Your task to perform on an android device: check google app version Image 0: 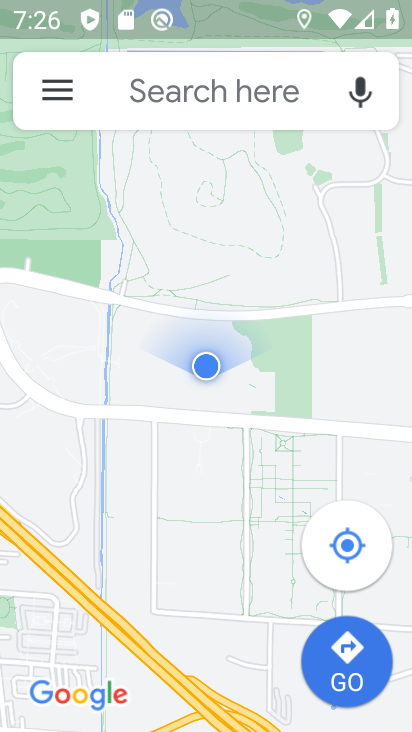
Step 0: press back button
Your task to perform on an android device: check google app version Image 1: 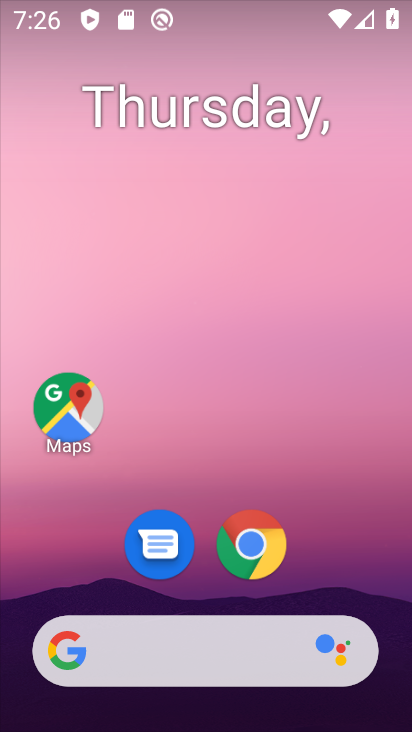
Step 1: drag from (331, 554) to (267, 180)
Your task to perform on an android device: check google app version Image 2: 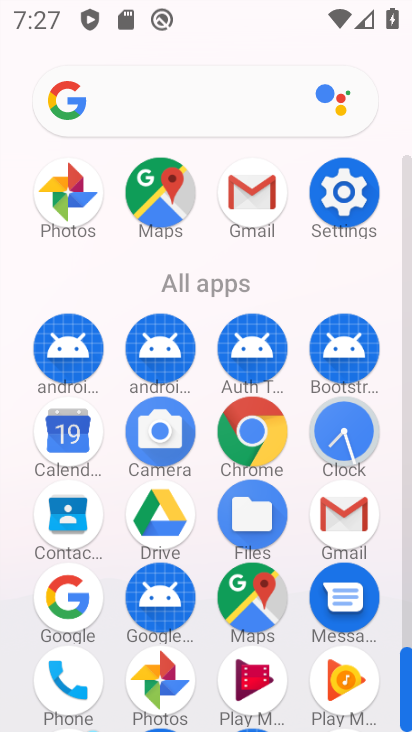
Step 2: click (61, 598)
Your task to perform on an android device: check google app version Image 3: 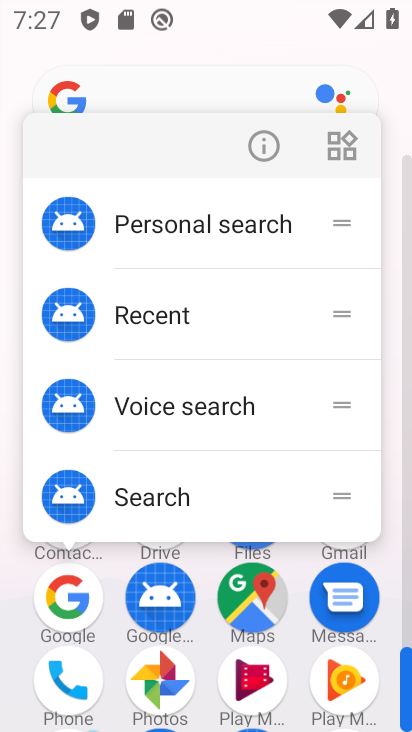
Step 3: click (266, 145)
Your task to perform on an android device: check google app version Image 4: 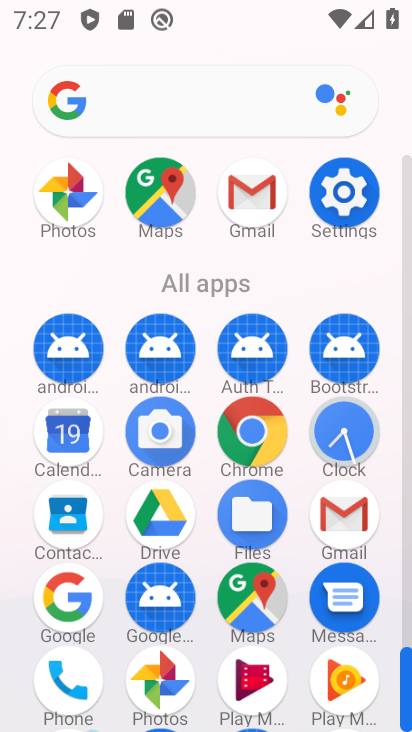
Step 4: click (62, 597)
Your task to perform on an android device: check google app version Image 5: 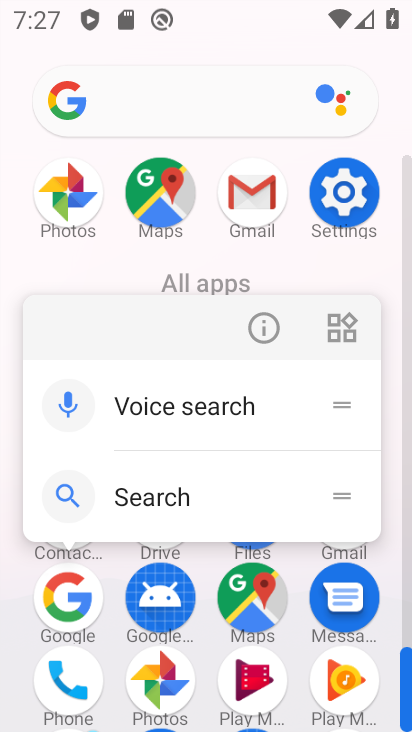
Step 5: click (271, 331)
Your task to perform on an android device: check google app version Image 6: 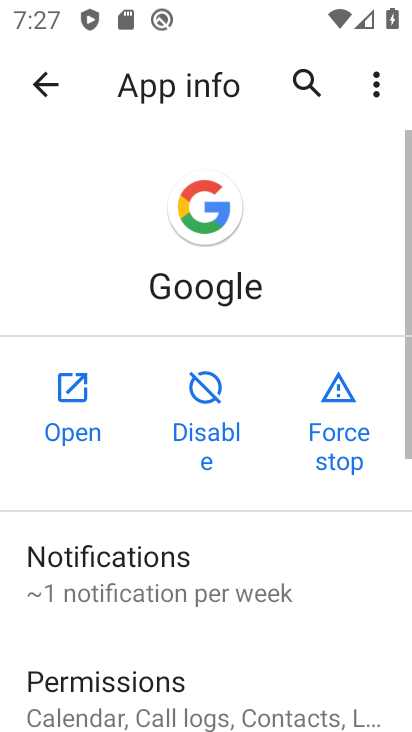
Step 6: drag from (237, 530) to (252, 247)
Your task to perform on an android device: check google app version Image 7: 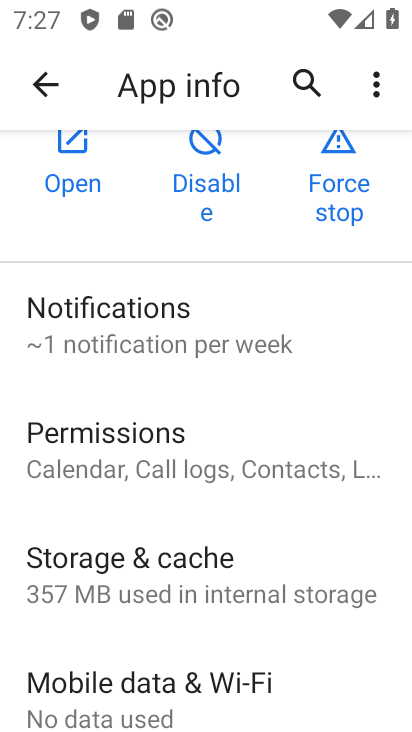
Step 7: drag from (202, 535) to (223, 308)
Your task to perform on an android device: check google app version Image 8: 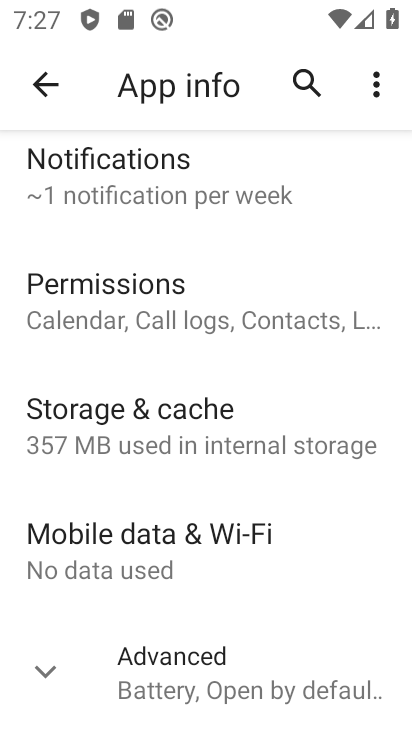
Step 8: click (176, 659)
Your task to perform on an android device: check google app version Image 9: 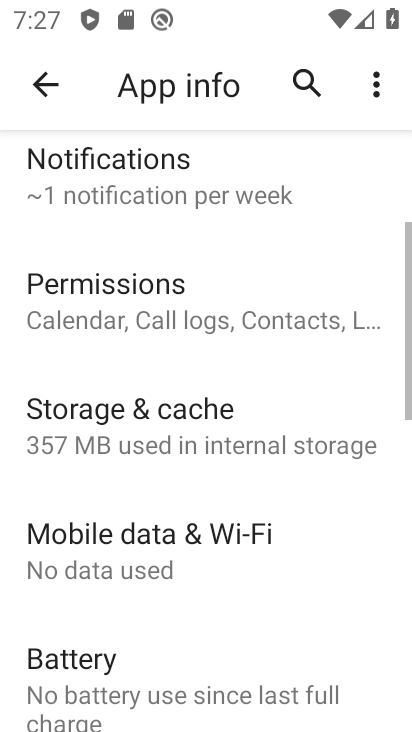
Step 9: task complete